Your task to perform on an android device: Open Maps and search for coffee Image 0: 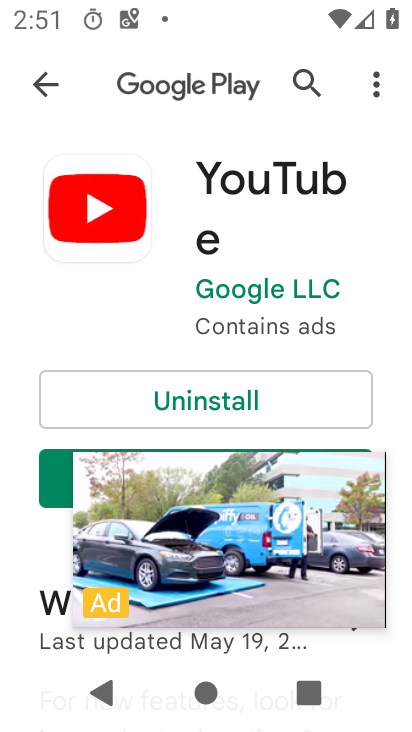
Step 0: drag from (282, 498) to (178, 708)
Your task to perform on an android device: Open Maps and search for coffee Image 1: 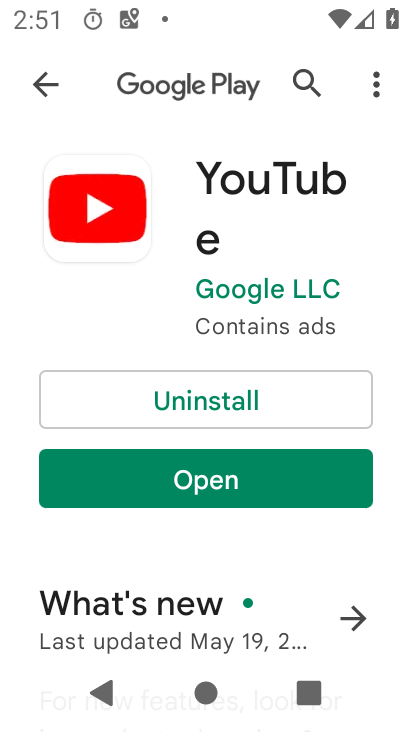
Step 1: press home button
Your task to perform on an android device: Open Maps and search for coffee Image 2: 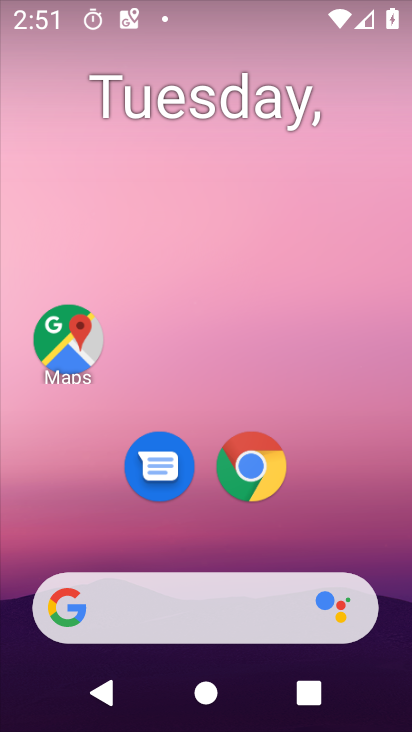
Step 2: drag from (358, 520) to (337, 140)
Your task to perform on an android device: Open Maps and search for coffee Image 3: 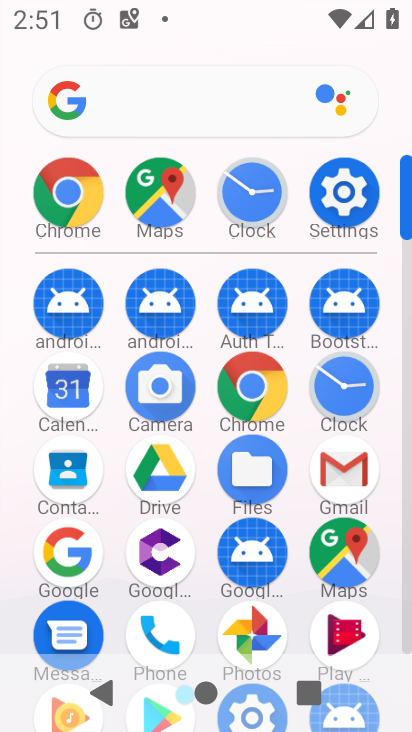
Step 3: click (351, 544)
Your task to perform on an android device: Open Maps and search for coffee Image 4: 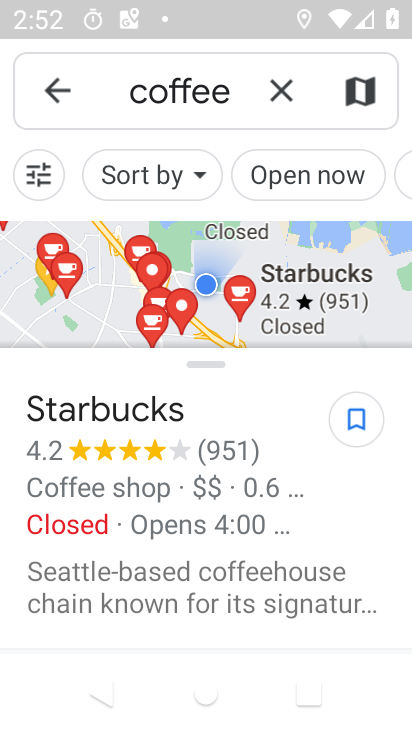
Step 4: task complete